Your task to perform on an android device: refresh tabs in the chrome app Image 0: 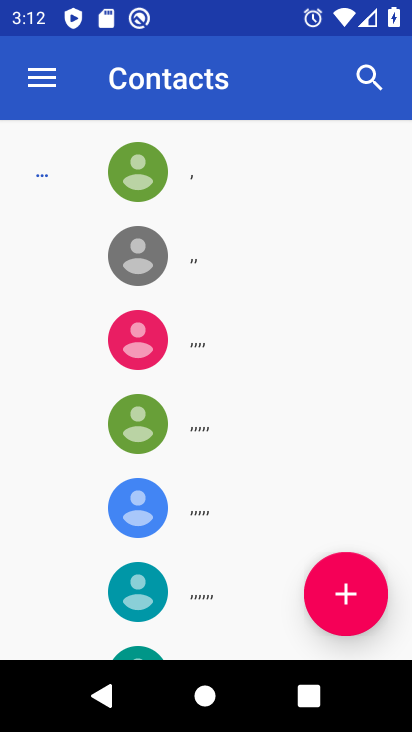
Step 0: press home button
Your task to perform on an android device: refresh tabs in the chrome app Image 1: 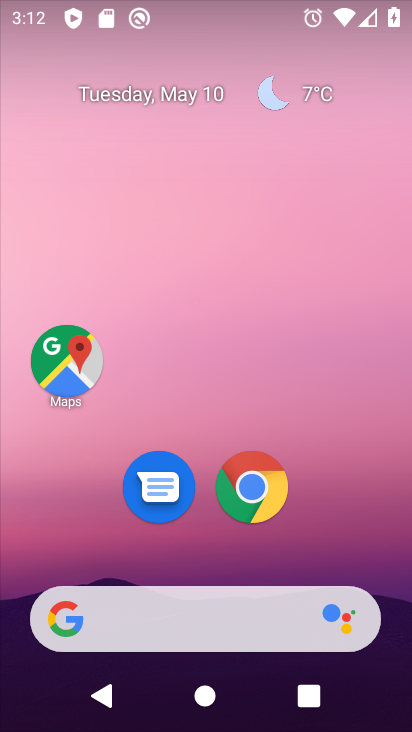
Step 1: click (260, 488)
Your task to perform on an android device: refresh tabs in the chrome app Image 2: 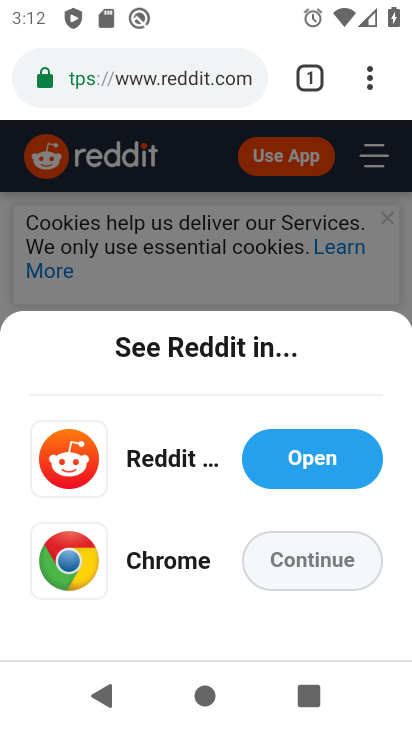
Step 2: click (372, 81)
Your task to perform on an android device: refresh tabs in the chrome app Image 3: 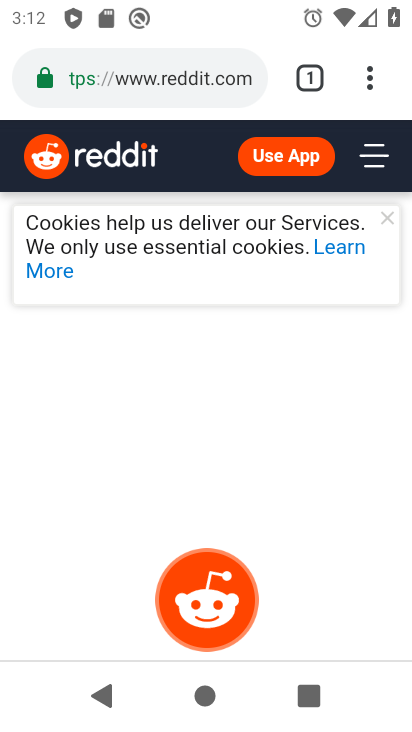
Step 3: task complete